Your task to perform on an android device: check google app version Image 0: 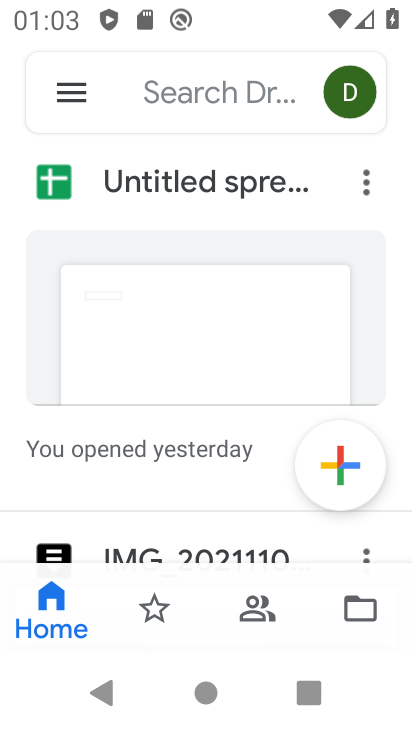
Step 0: press home button
Your task to perform on an android device: check google app version Image 1: 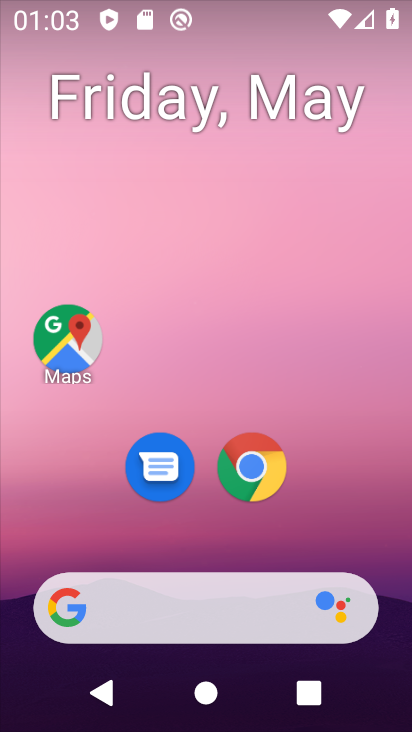
Step 1: drag from (242, 653) to (295, 168)
Your task to perform on an android device: check google app version Image 2: 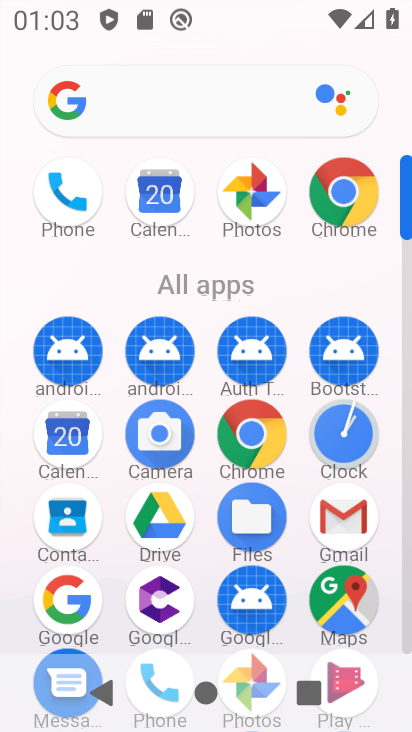
Step 2: click (336, 202)
Your task to perform on an android device: check google app version Image 3: 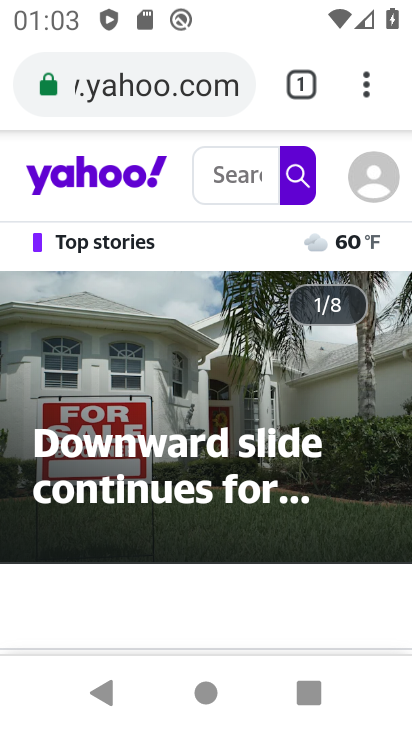
Step 3: click (361, 78)
Your task to perform on an android device: check google app version Image 4: 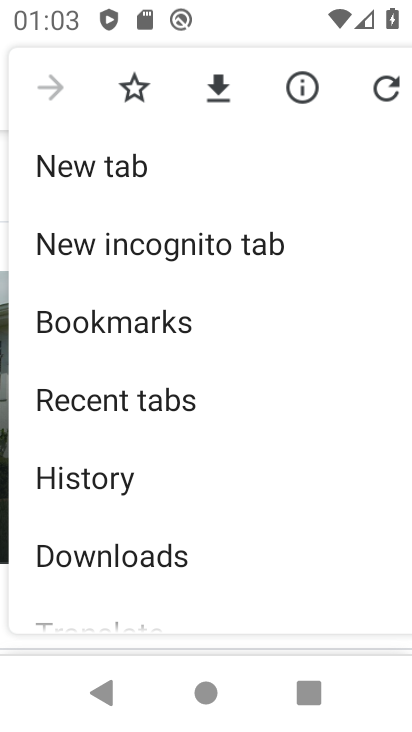
Step 4: drag from (182, 496) to (263, 149)
Your task to perform on an android device: check google app version Image 5: 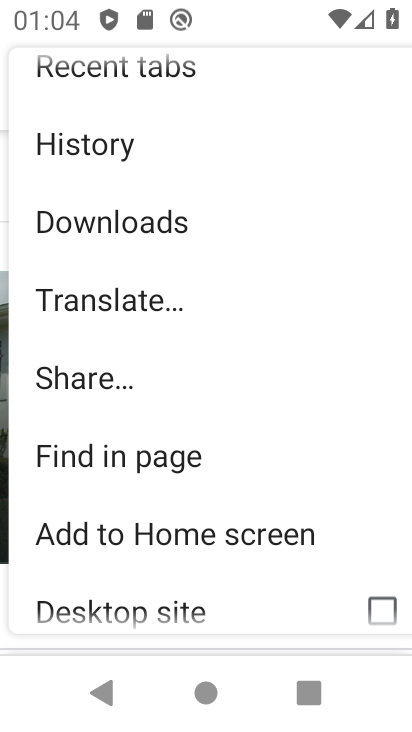
Step 5: drag from (177, 522) to (212, 289)
Your task to perform on an android device: check google app version Image 6: 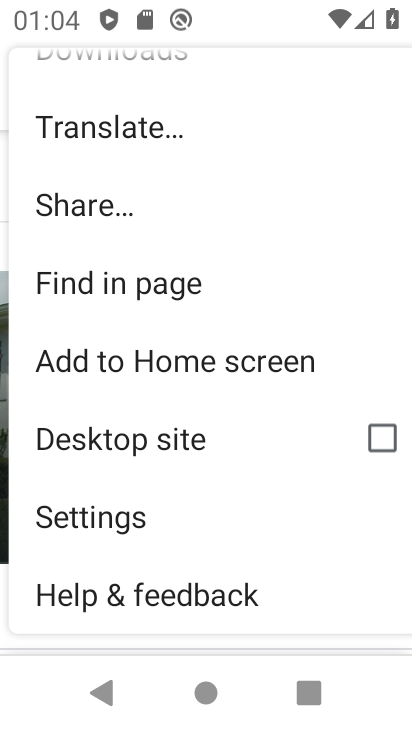
Step 6: click (125, 535)
Your task to perform on an android device: check google app version Image 7: 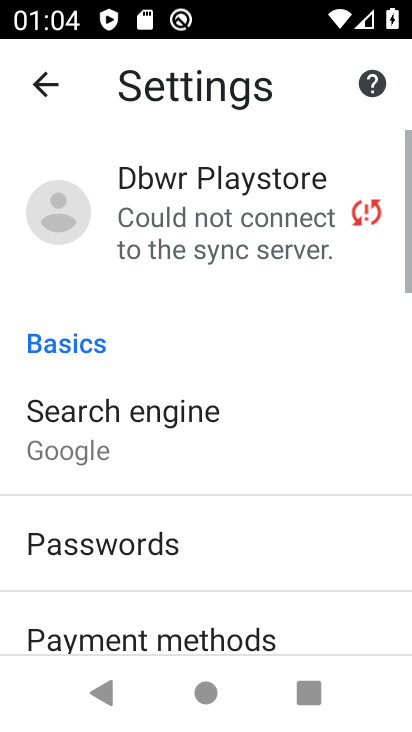
Step 7: drag from (186, 577) to (317, 194)
Your task to perform on an android device: check google app version Image 8: 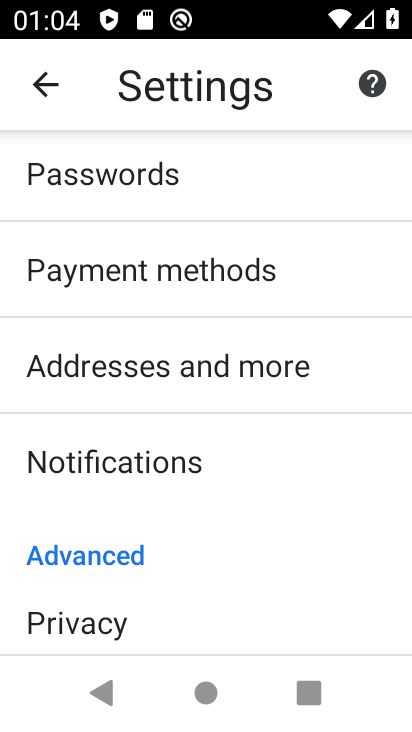
Step 8: drag from (185, 541) to (272, 278)
Your task to perform on an android device: check google app version Image 9: 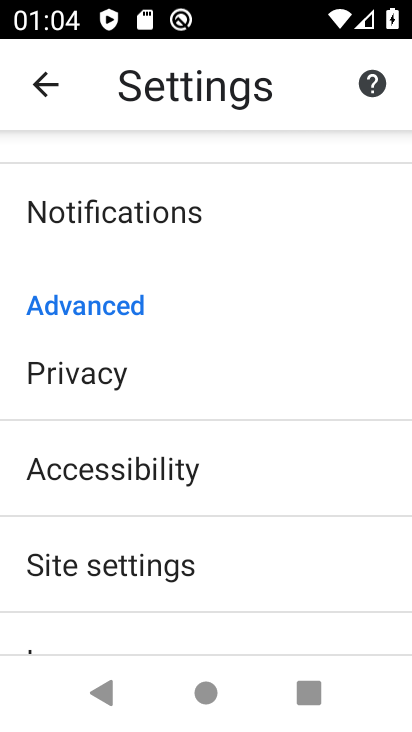
Step 9: drag from (196, 522) to (228, 377)
Your task to perform on an android device: check google app version Image 10: 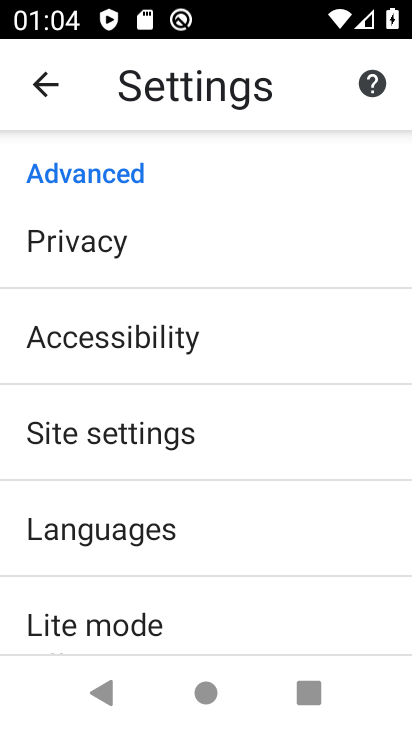
Step 10: drag from (192, 501) to (233, 388)
Your task to perform on an android device: check google app version Image 11: 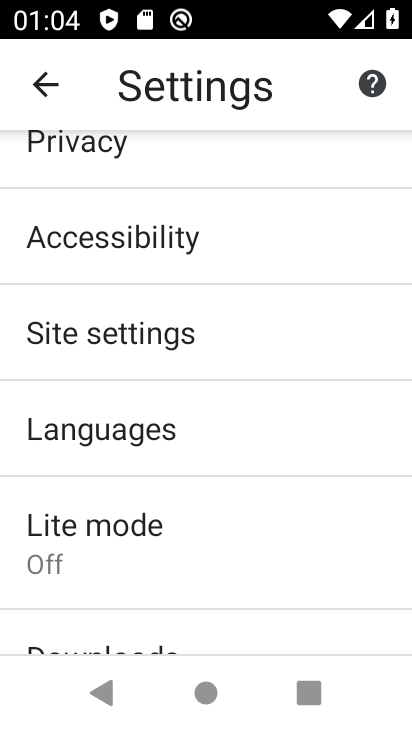
Step 11: drag from (183, 589) to (228, 305)
Your task to perform on an android device: check google app version Image 12: 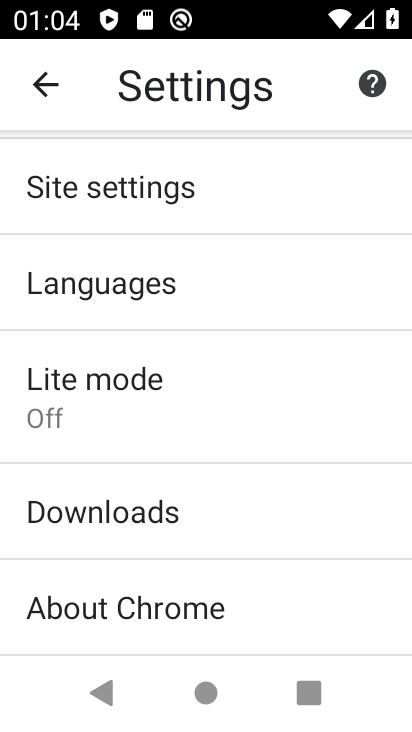
Step 12: drag from (162, 525) to (222, 317)
Your task to perform on an android device: check google app version Image 13: 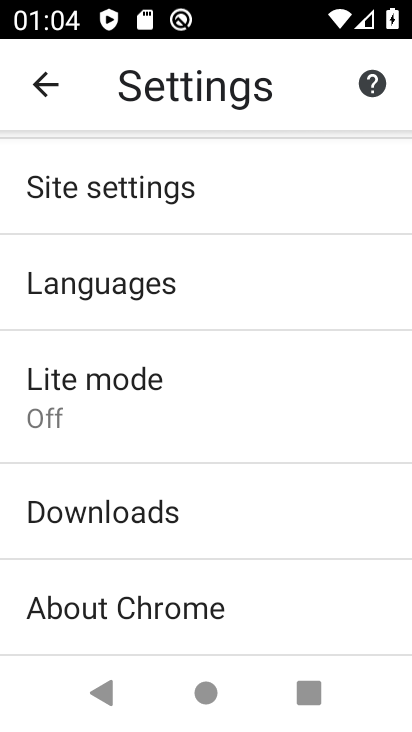
Step 13: click (136, 607)
Your task to perform on an android device: check google app version Image 14: 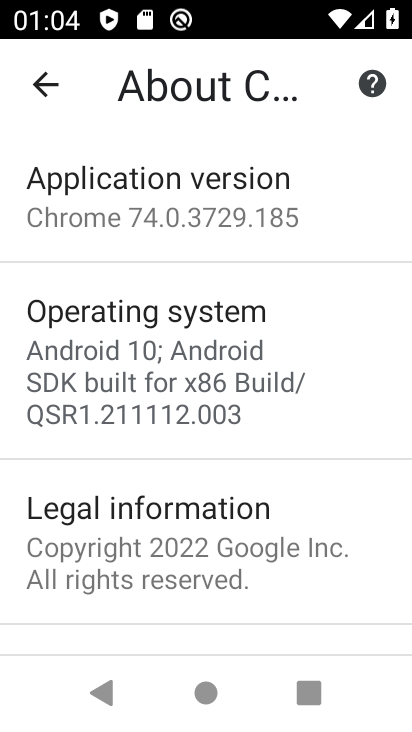
Step 14: drag from (140, 601) to (181, 423)
Your task to perform on an android device: check google app version Image 15: 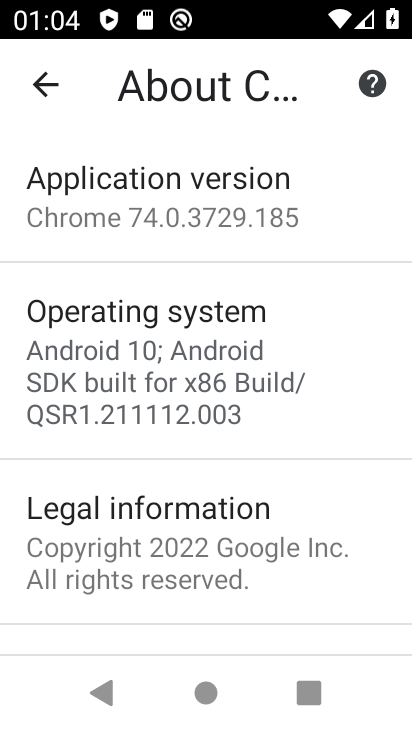
Step 15: click (177, 242)
Your task to perform on an android device: check google app version Image 16: 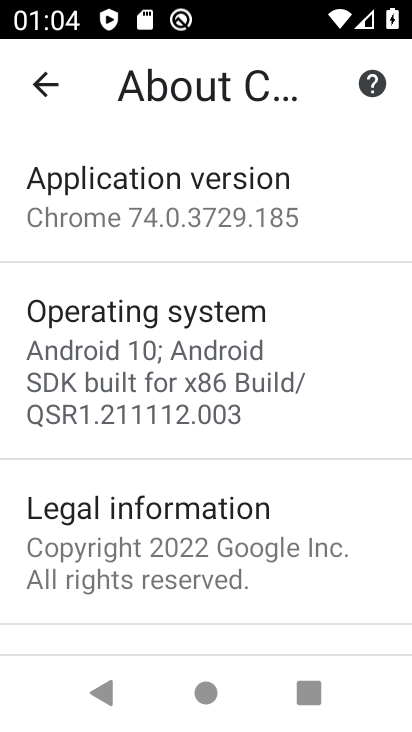
Step 16: task complete